Your task to perform on an android device: delete the emails in spam in the gmail app Image 0: 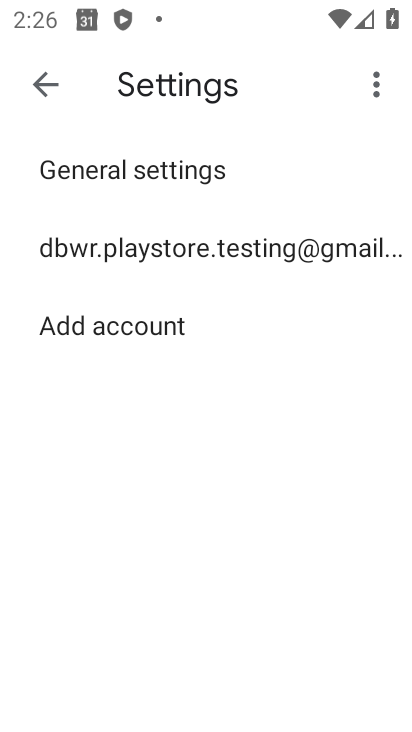
Step 0: press home button
Your task to perform on an android device: delete the emails in spam in the gmail app Image 1: 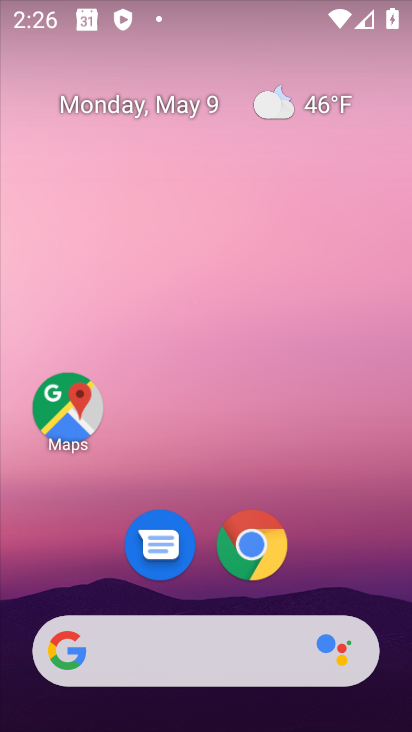
Step 1: drag from (202, 613) to (210, 219)
Your task to perform on an android device: delete the emails in spam in the gmail app Image 2: 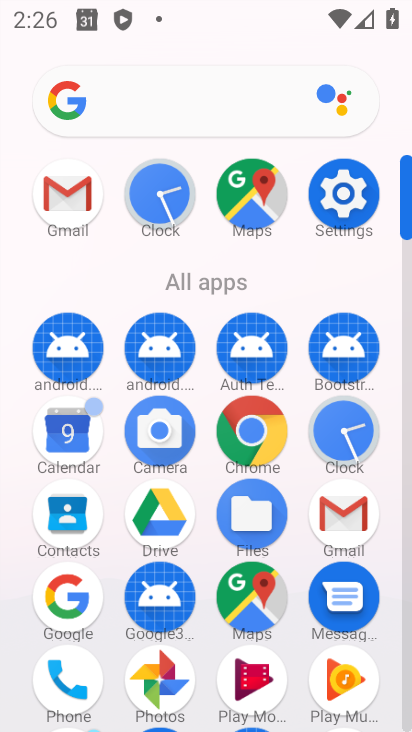
Step 2: click (58, 188)
Your task to perform on an android device: delete the emails in spam in the gmail app Image 3: 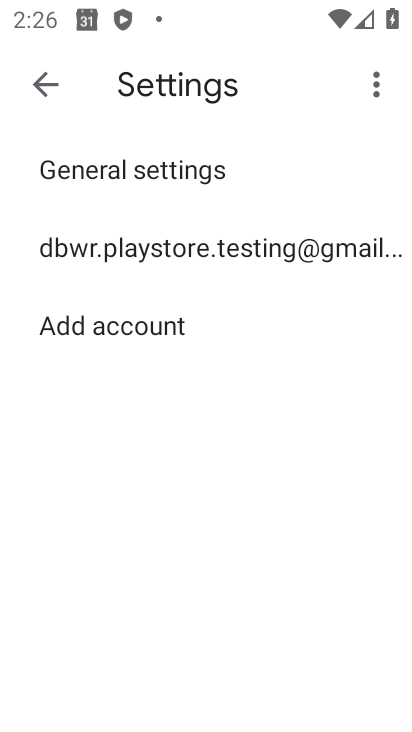
Step 3: click (190, 243)
Your task to perform on an android device: delete the emails in spam in the gmail app Image 4: 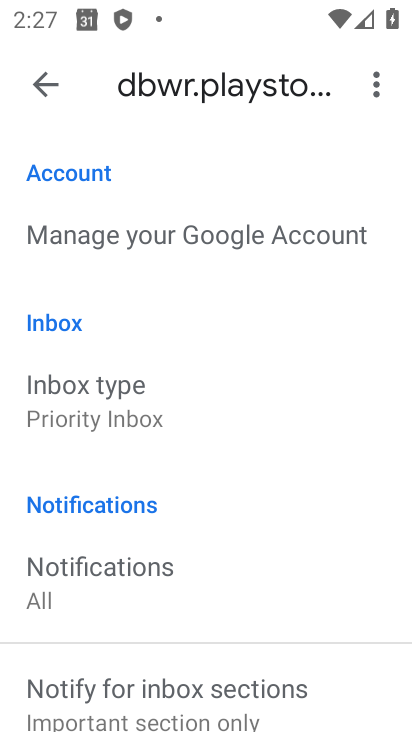
Step 4: click (45, 91)
Your task to perform on an android device: delete the emails in spam in the gmail app Image 5: 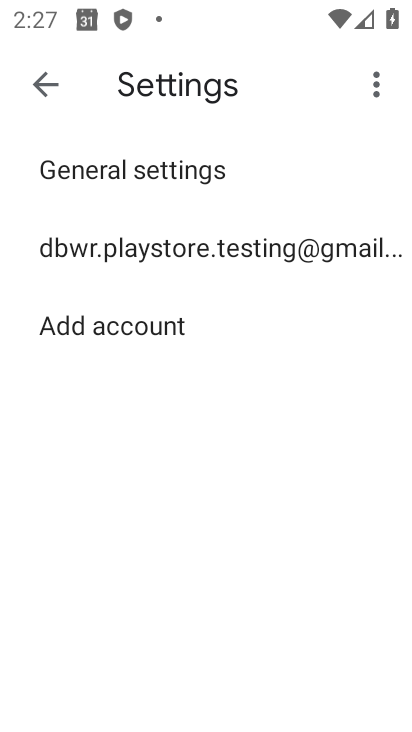
Step 5: click (45, 91)
Your task to perform on an android device: delete the emails in spam in the gmail app Image 6: 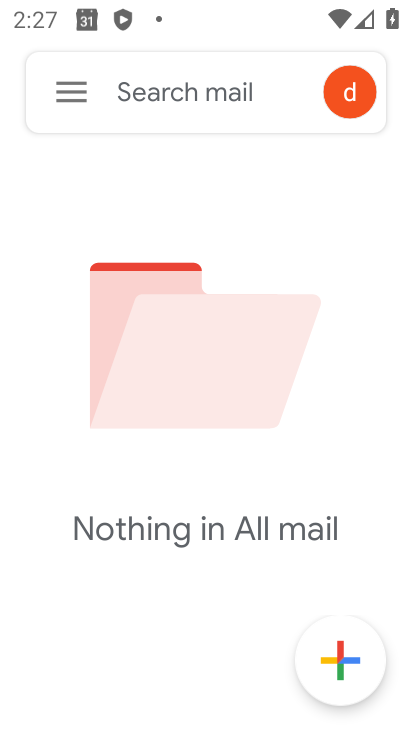
Step 6: click (78, 95)
Your task to perform on an android device: delete the emails in spam in the gmail app Image 7: 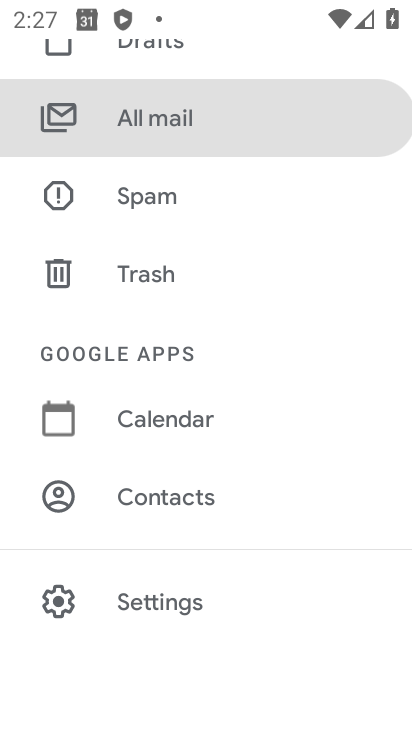
Step 7: click (196, 193)
Your task to perform on an android device: delete the emails in spam in the gmail app Image 8: 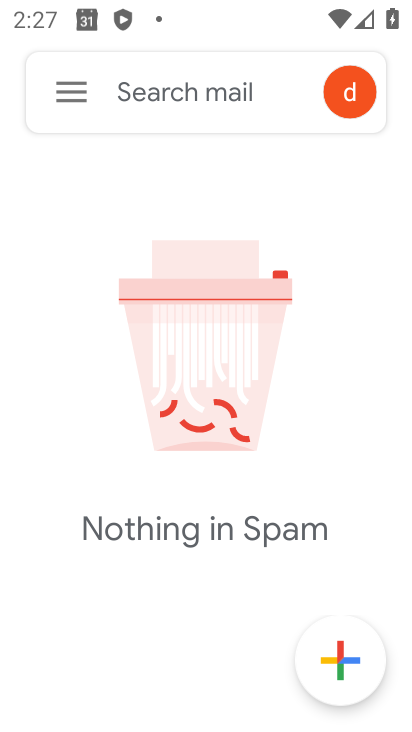
Step 8: task complete